Your task to perform on an android device: Go to eBay Image 0: 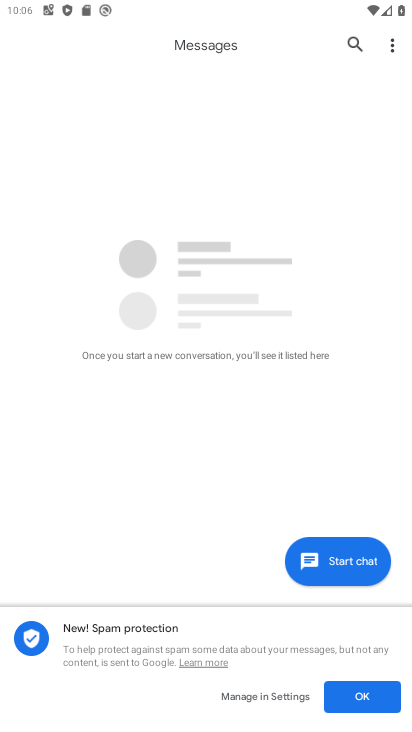
Step 0: press home button
Your task to perform on an android device: Go to eBay Image 1: 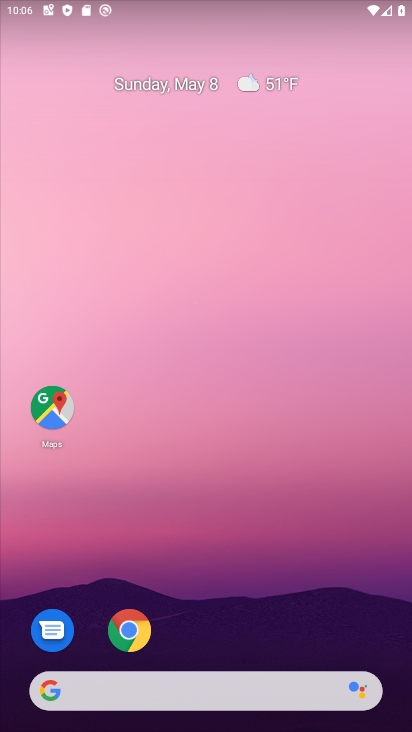
Step 1: drag from (365, 625) to (251, 99)
Your task to perform on an android device: Go to eBay Image 2: 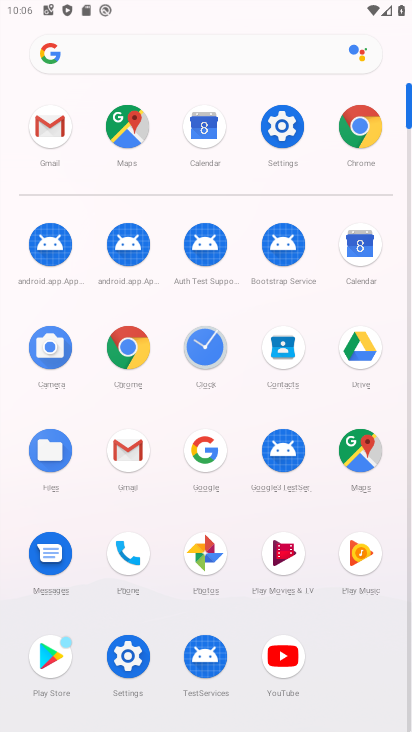
Step 2: click (372, 122)
Your task to perform on an android device: Go to eBay Image 3: 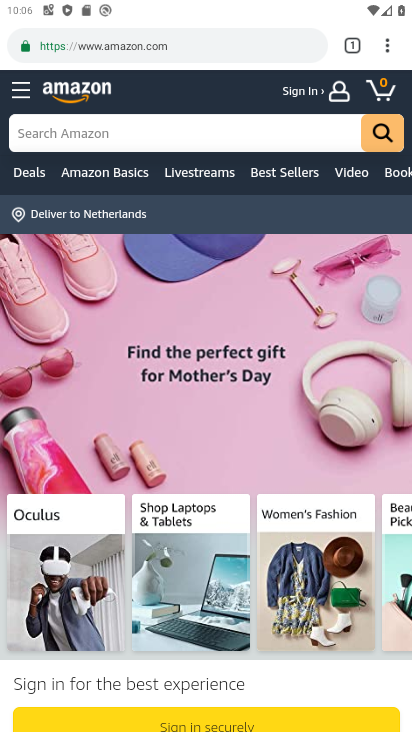
Step 3: press back button
Your task to perform on an android device: Go to eBay Image 4: 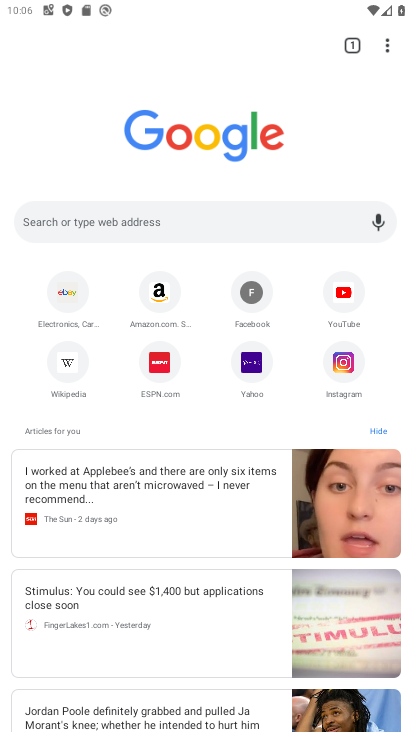
Step 4: click (64, 289)
Your task to perform on an android device: Go to eBay Image 5: 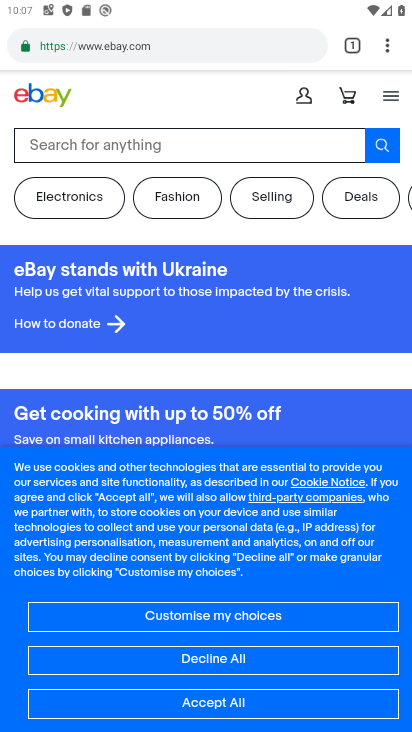
Step 5: task complete